Your task to perform on an android device: What time is it in New York? Image 0: 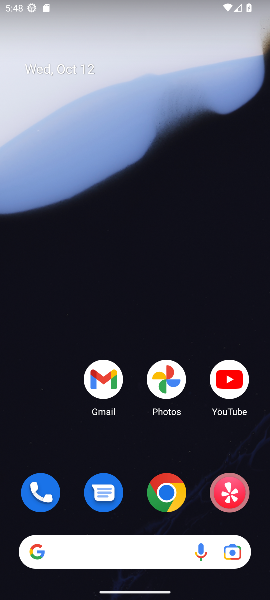
Step 0: click (173, 503)
Your task to perform on an android device: What time is it in New York? Image 1: 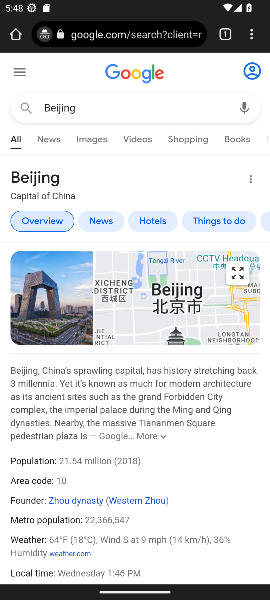
Step 1: click (117, 110)
Your task to perform on an android device: What time is it in New York? Image 2: 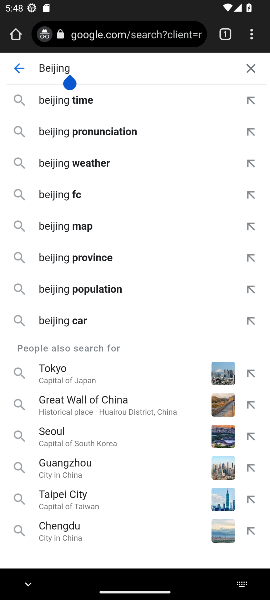
Step 2: click (245, 66)
Your task to perform on an android device: What time is it in New York? Image 3: 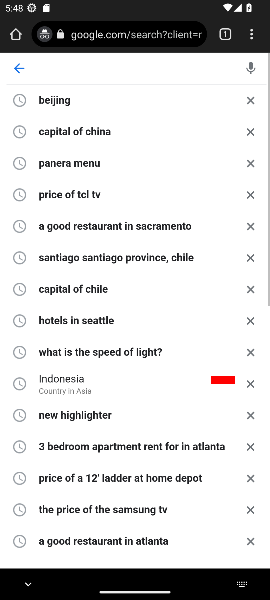
Step 3: type "time in new york"
Your task to perform on an android device: What time is it in New York? Image 4: 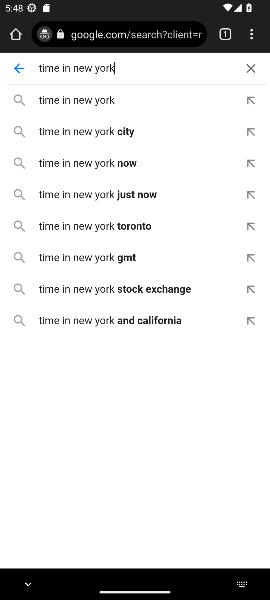
Step 4: click (72, 104)
Your task to perform on an android device: What time is it in New York? Image 5: 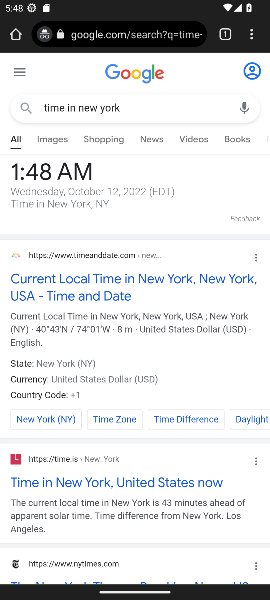
Step 5: task complete